Your task to perform on an android device: find which apps use the phone's location Image 0: 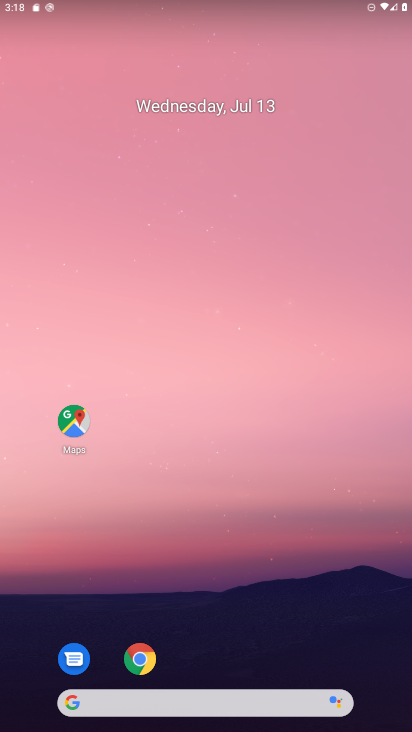
Step 0: drag from (371, 669) to (305, 96)
Your task to perform on an android device: find which apps use the phone's location Image 1: 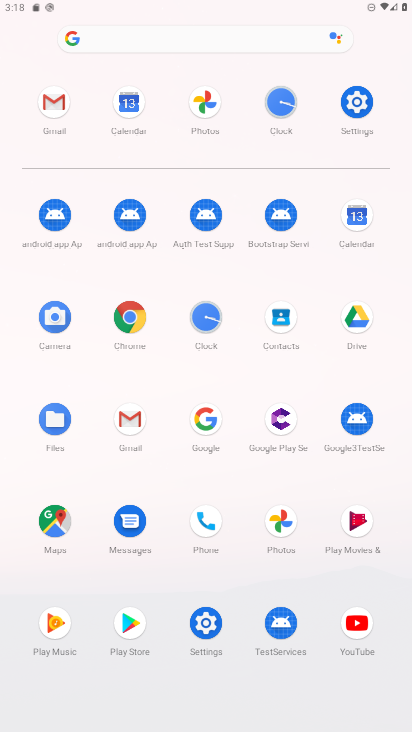
Step 1: click (206, 625)
Your task to perform on an android device: find which apps use the phone's location Image 2: 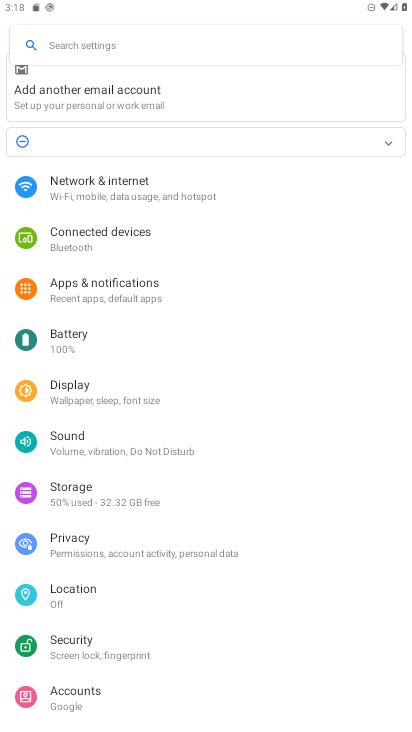
Step 2: click (62, 592)
Your task to perform on an android device: find which apps use the phone's location Image 3: 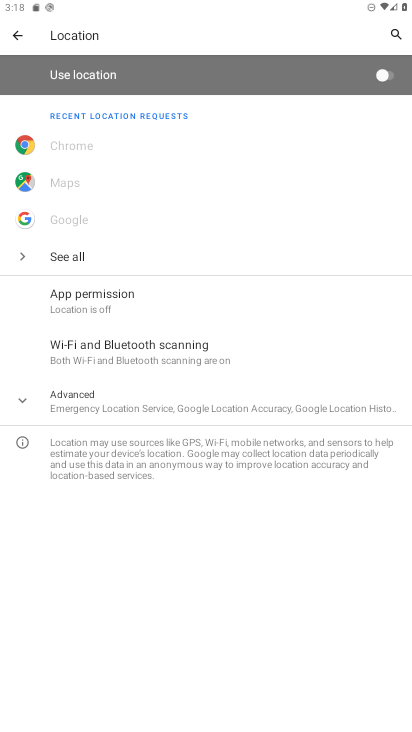
Step 3: click (76, 296)
Your task to perform on an android device: find which apps use the phone's location Image 4: 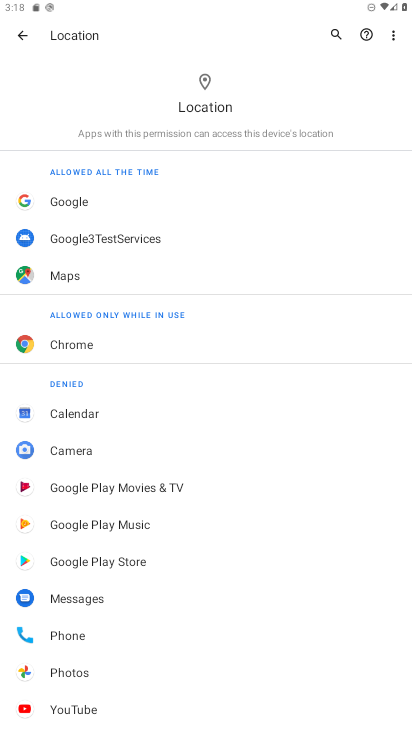
Step 4: drag from (162, 686) to (174, 456)
Your task to perform on an android device: find which apps use the phone's location Image 5: 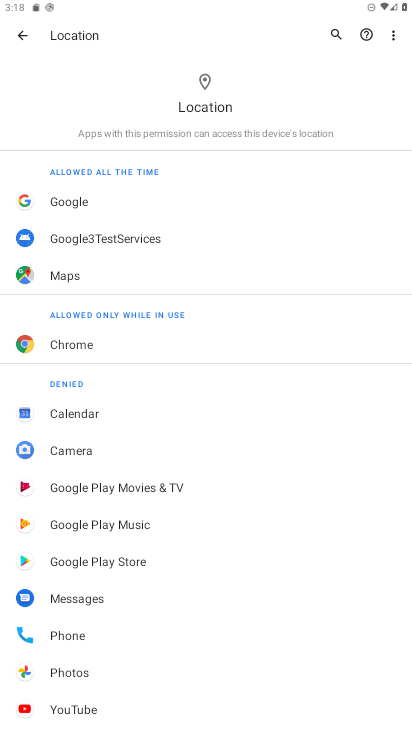
Step 5: click (57, 674)
Your task to perform on an android device: find which apps use the phone's location Image 6: 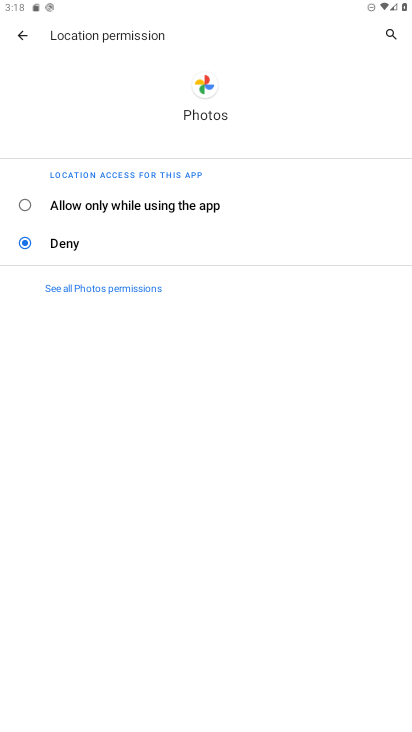
Step 6: task complete